Your task to perform on an android device: What's US dollar exchange rate against the British Pound? Image 0: 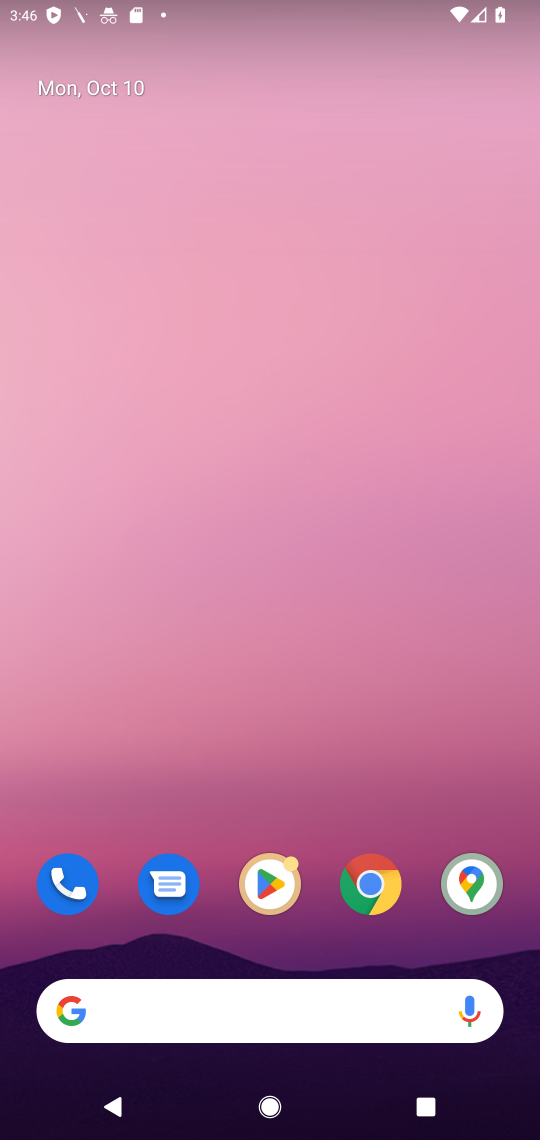
Step 0: click (210, 1002)
Your task to perform on an android device: What's US dollar exchange rate against the British Pound? Image 1: 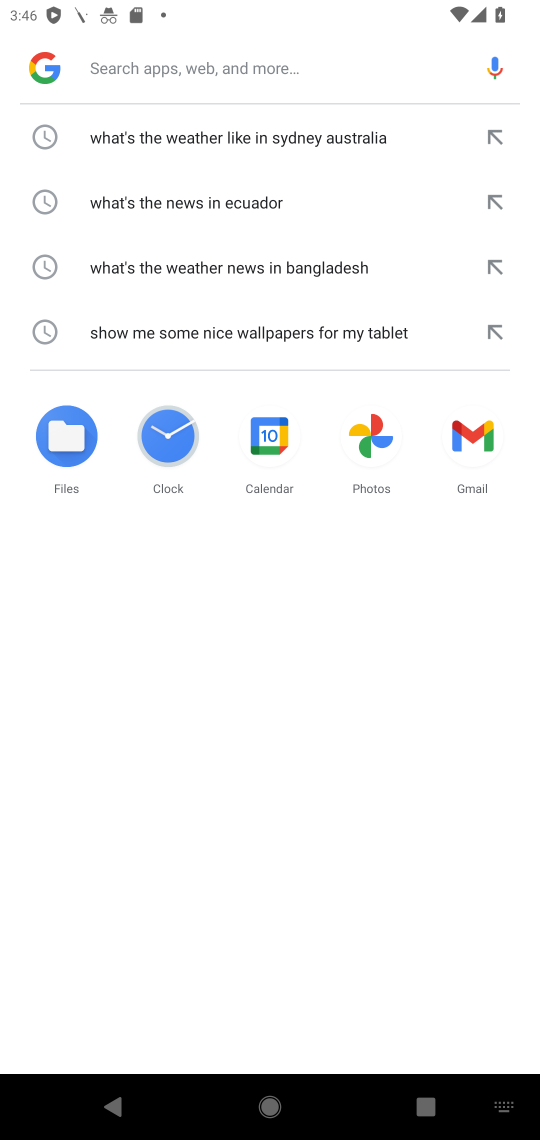
Step 1: type "What's US dollar exchange rate against the British Pound?"
Your task to perform on an android device: What's US dollar exchange rate against the British Pound? Image 2: 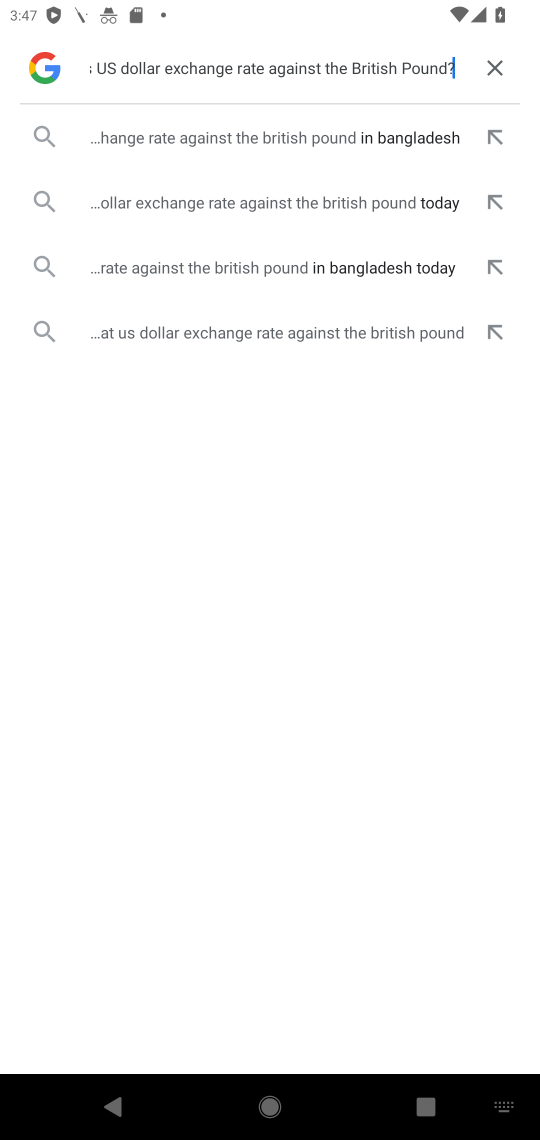
Step 2: click (285, 199)
Your task to perform on an android device: What's US dollar exchange rate against the British Pound? Image 3: 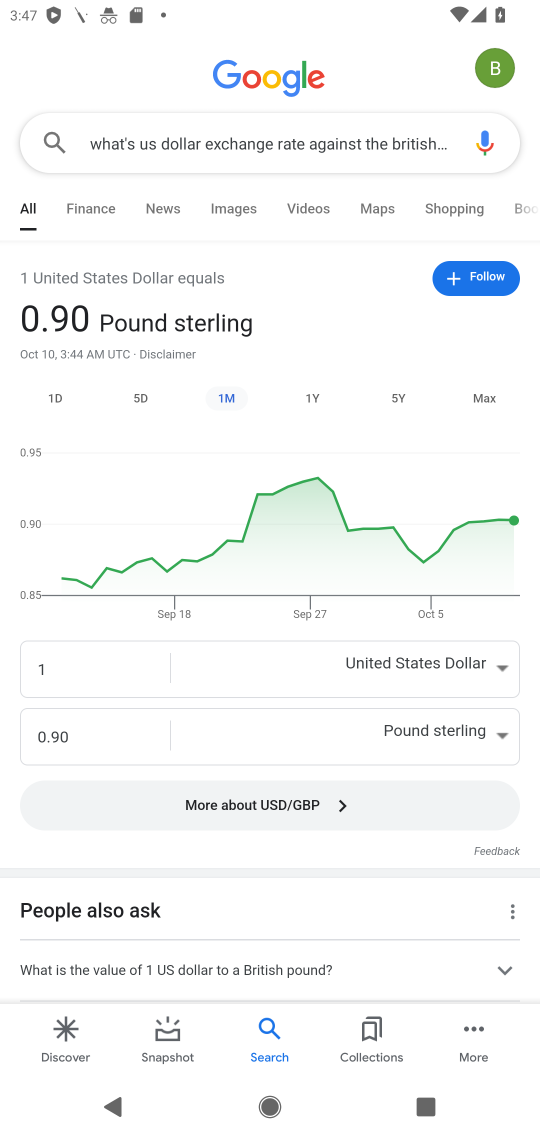
Step 3: task complete